Your task to perform on an android device: turn on airplane mode Image 0: 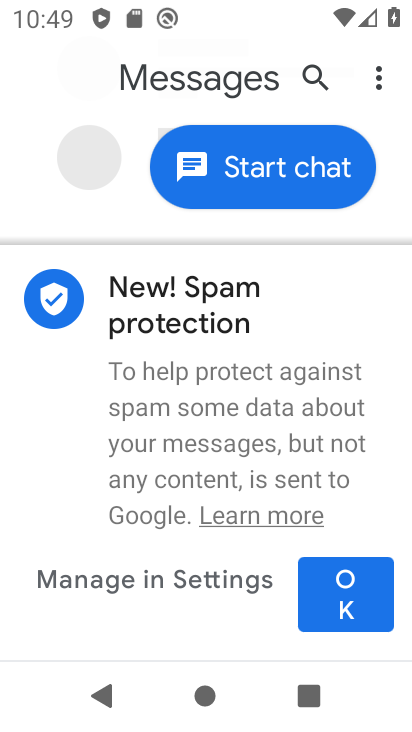
Step 0: press home button
Your task to perform on an android device: turn on airplane mode Image 1: 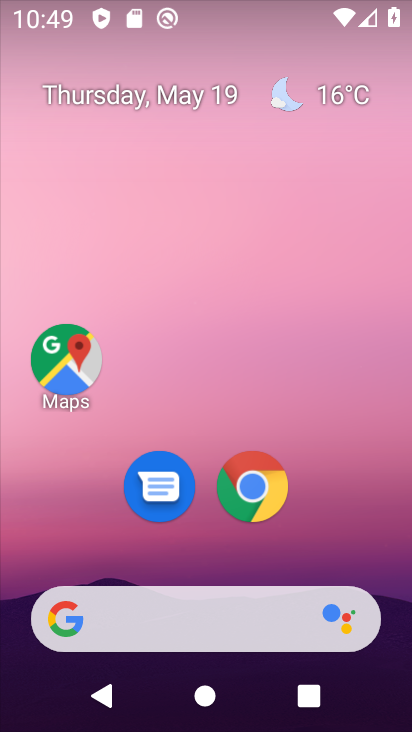
Step 1: drag from (345, 569) to (348, 131)
Your task to perform on an android device: turn on airplane mode Image 2: 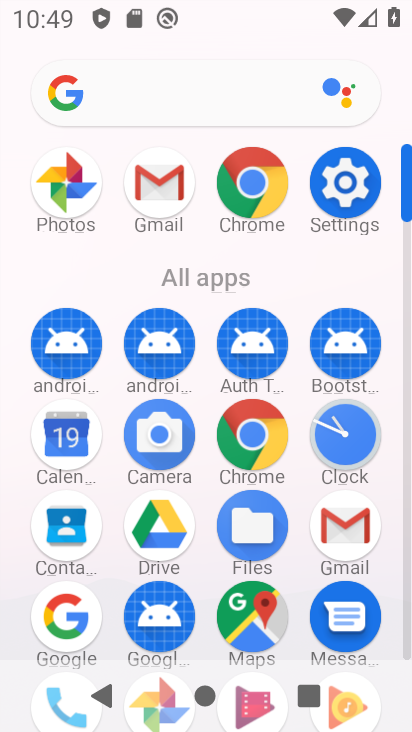
Step 2: click (315, 172)
Your task to perform on an android device: turn on airplane mode Image 3: 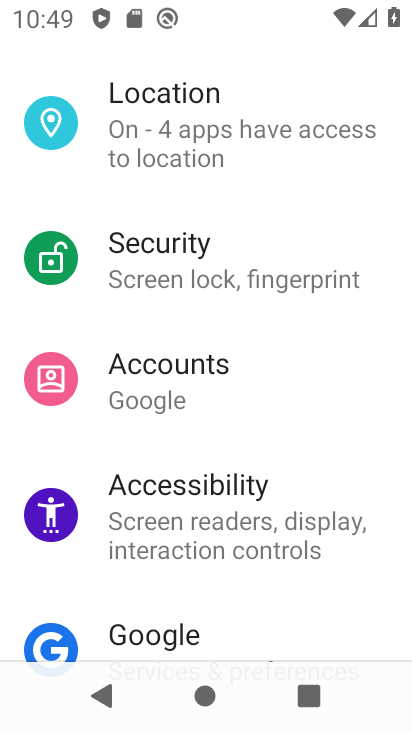
Step 3: drag from (263, 163) to (237, 679)
Your task to perform on an android device: turn on airplane mode Image 4: 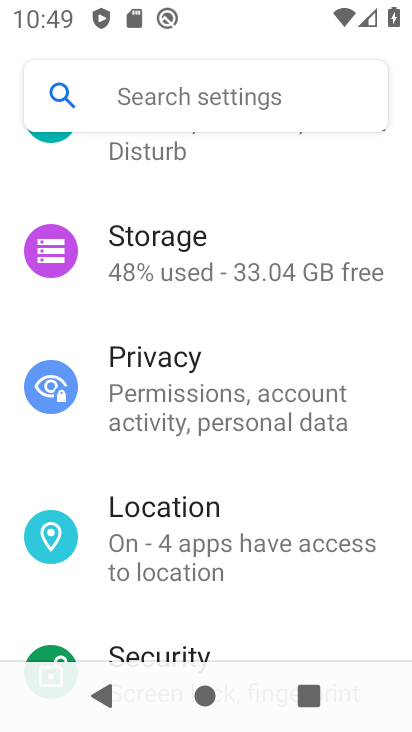
Step 4: drag from (212, 213) to (215, 654)
Your task to perform on an android device: turn on airplane mode Image 5: 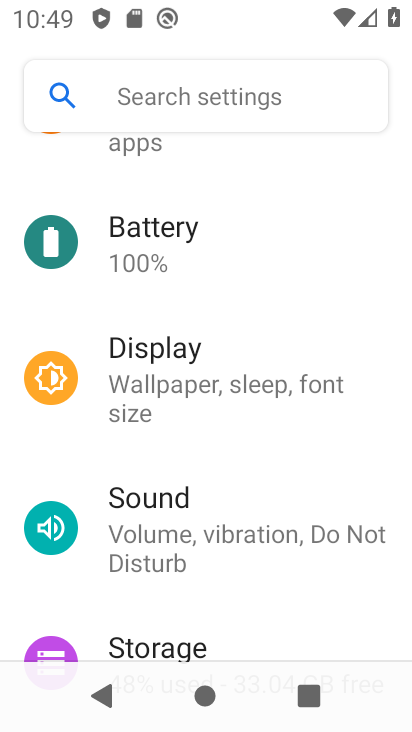
Step 5: drag from (195, 243) to (193, 616)
Your task to perform on an android device: turn on airplane mode Image 6: 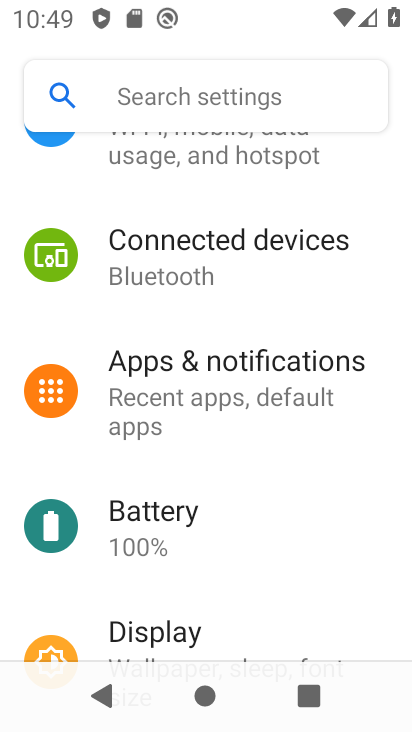
Step 6: drag from (225, 171) to (214, 649)
Your task to perform on an android device: turn on airplane mode Image 7: 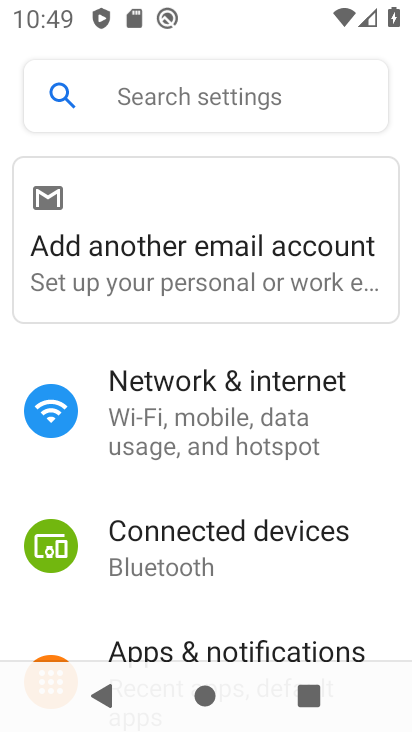
Step 7: click (180, 425)
Your task to perform on an android device: turn on airplane mode Image 8: 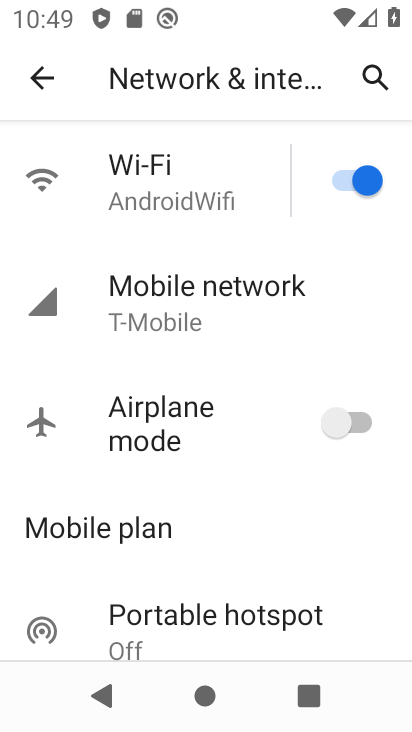
Step 8: drag from (199, 291) to (199, 448)
Your task to perform on an android device: turn on airplane mode Image 9: 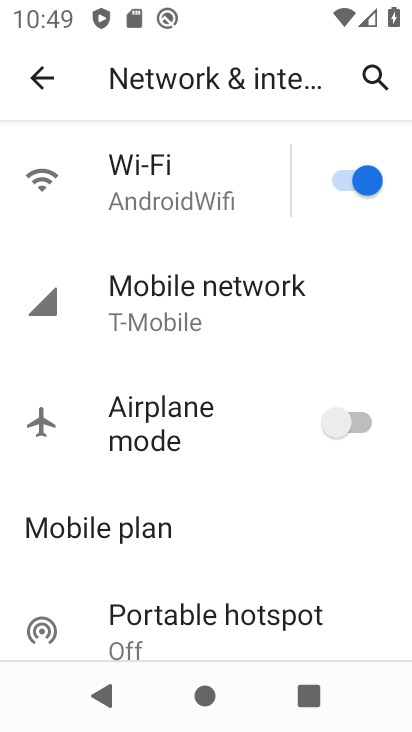
Step 9: click (199, 448)
Your task to perform on an android device: turn on airplane mode Image 10: 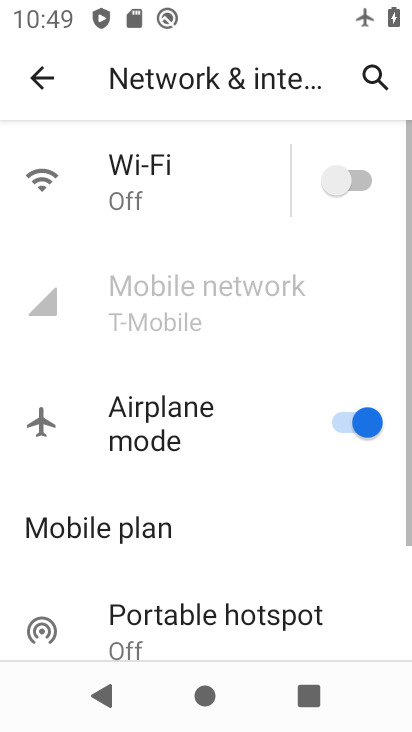
Step 10: click (324, 199)
Your task to perform on an android device: turn on airplane mode Image 11: 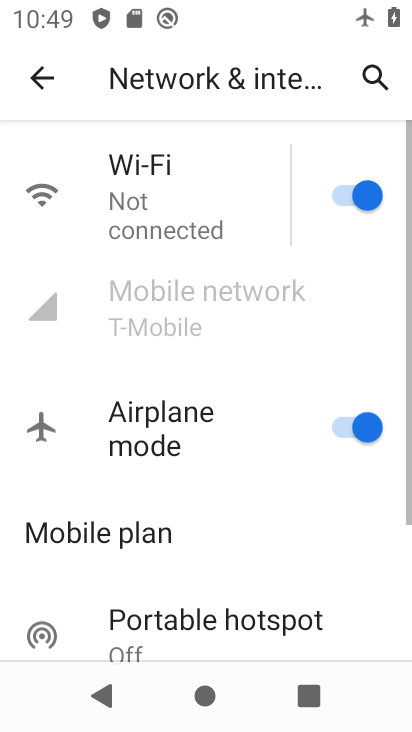
Step 11: task complete